Your task to perform on an android device: Go to Reddit.com Image 0: 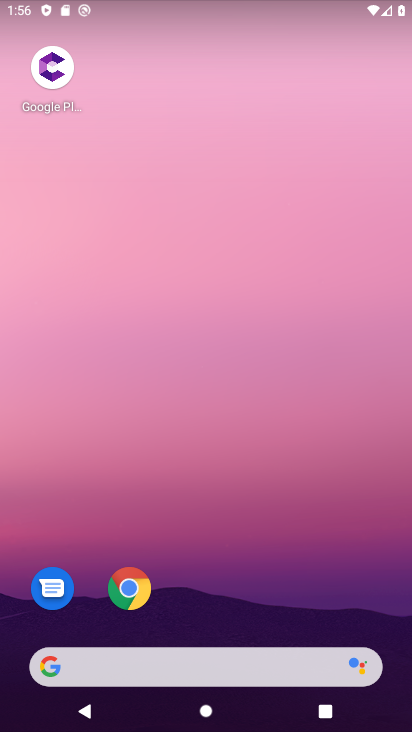
Step 0: click (110, 356)
Your task to perform on an android device: Go to Reddit.com Image 1: 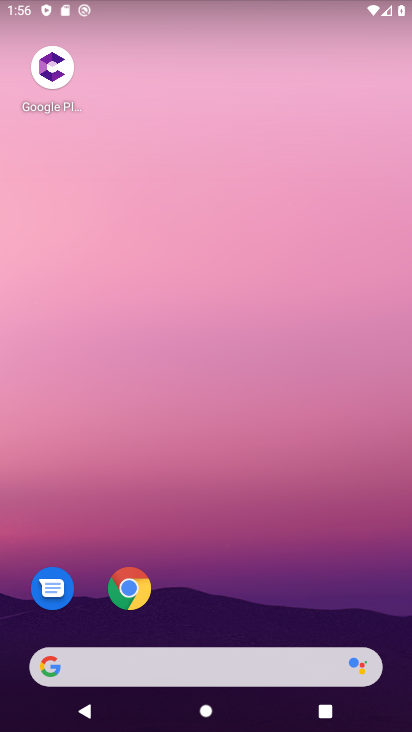
Step 1: click (234, 540)
Your task to perform on an android device: Go to Reddit.com Image 2: 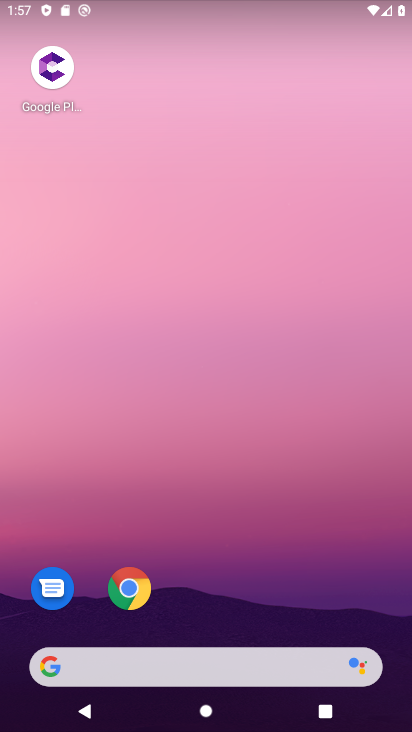
Step 2: click (102, 1)
Your task to perform on an android device: Go to Reddit.com Image 3: 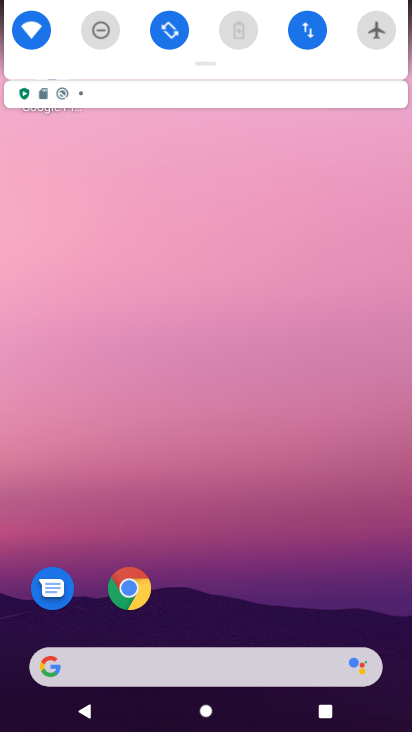
Step 3: click (245, 145)
Your task to perform on an android device: Go to Reddit.com Image 4: 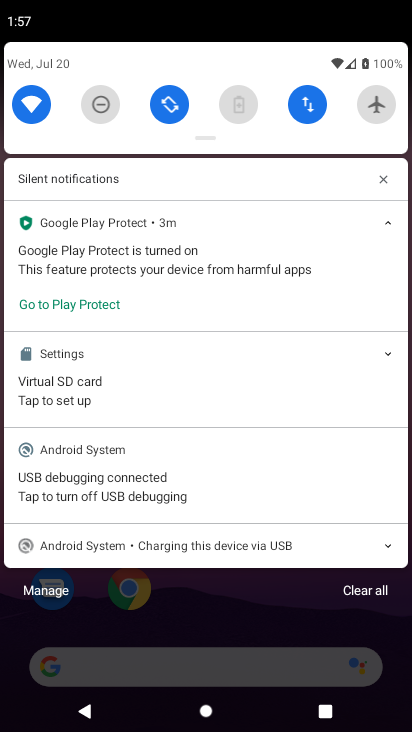
Step 4: press back button
Your task to perform on an android device: Go to Reddit.com Image 5: 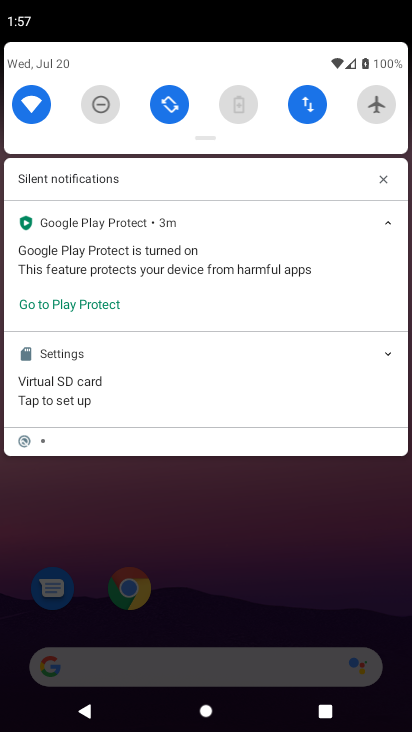
Step 5: press back button
Your task to perform on an android device: Go to Reddit.com Image 6: 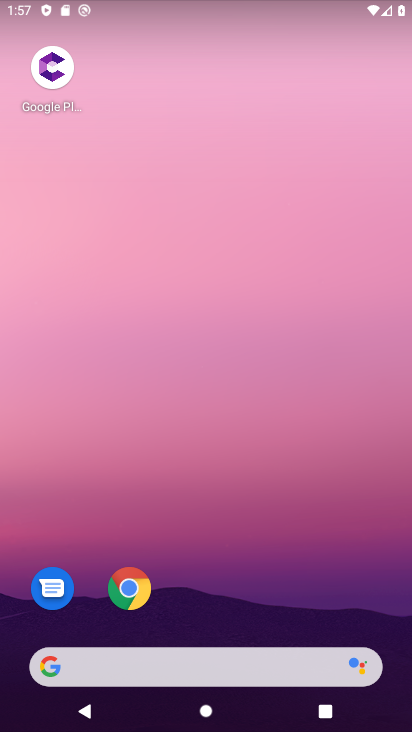
Step 6: click (161, 285)
Your task to perform on an android device: Go to Reddit.com Image 7: 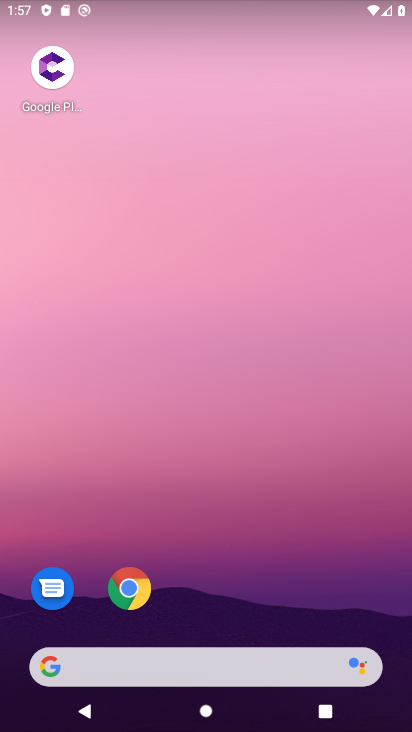
Step 7: drag from (202, 572) to (220, 275)
Your task to perform on an android device: Go to Reddit.com Image 8: 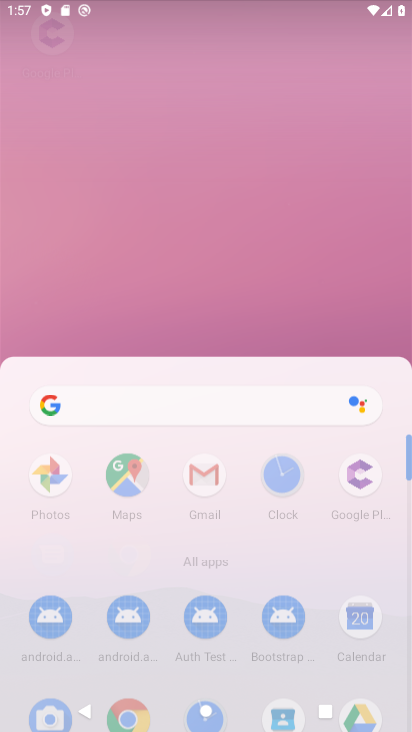
Step 8: drag from (313, 618) to (361, 217)
Your task to perform on an android device: Go to Reddit.com Image 9: 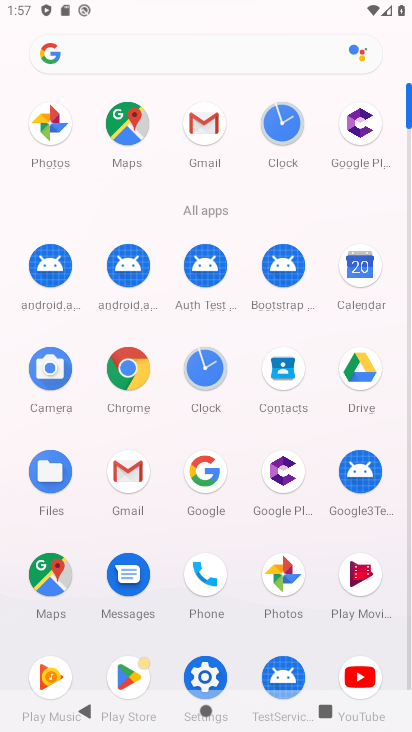
Step 9: click (379, 286)
Your task to perform on an android device: Go to Reddit.com Image 10: 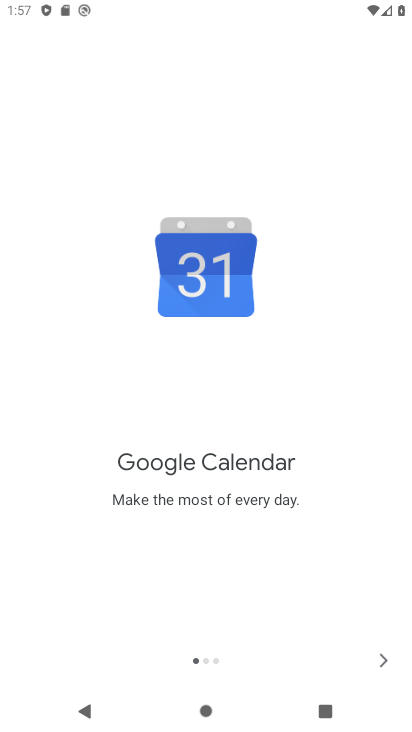
Step 10: press back button
Your task to perform on an android device: Go to Reddit.com Image 11: 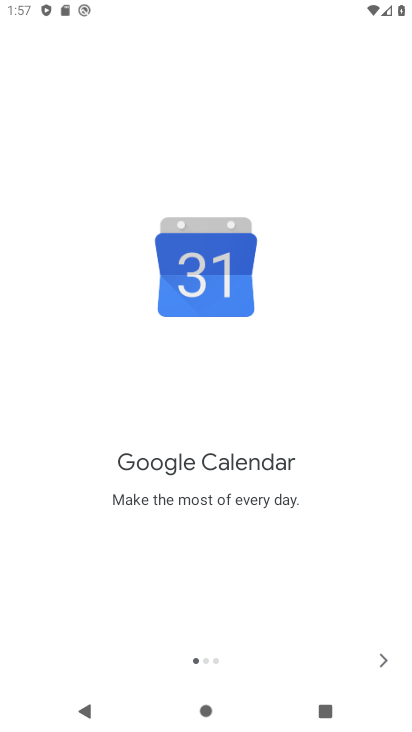
Step 11: press back button
Your task to perform on an android device: Go to Reddit.com Image 12: 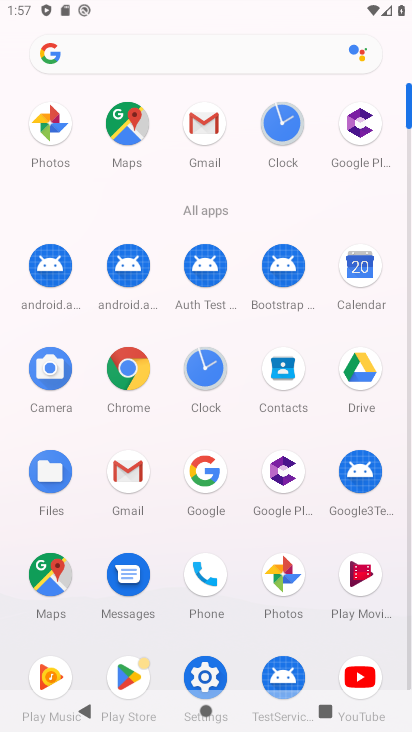
Step 12: press back button
Your task to perform on an android device: Go to Reddit.com Image 13: 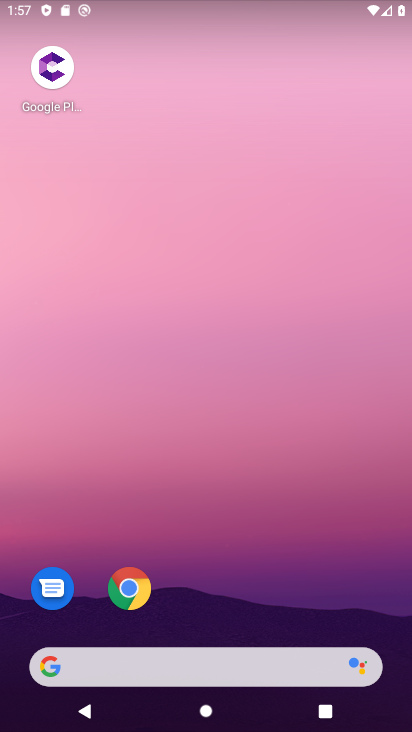
Step 13: drag from (214, 584) to (238, 149)
Your task to perform on an android device: Go to Reddit.com Image 14: 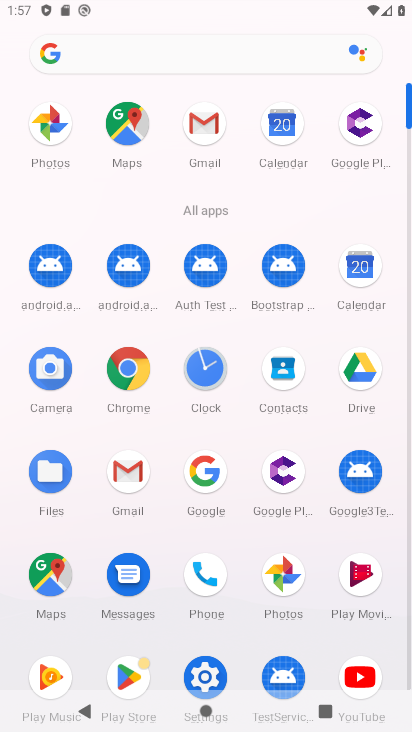
Step 14: click (114, 356)
Your task to perform on an android device: Go to Reddit.com Image 15: 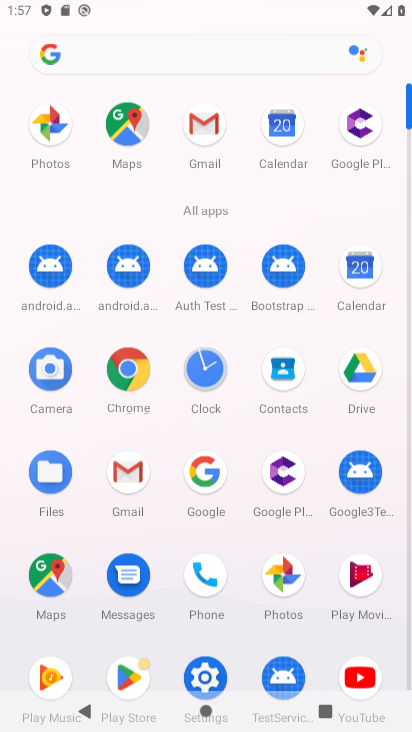
Step 15: click (134, 365)
Your task to perform on an android device: Go to Reddit.com Image 16: 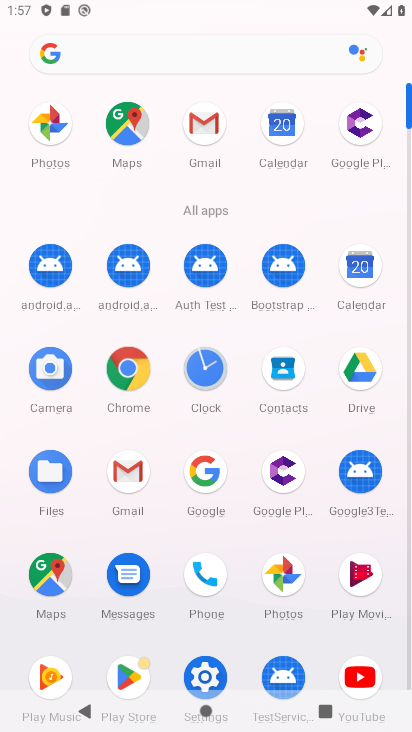
Step 16: click (131, 371)
Your task to perform on an android device: Go to Reddit.com Image 17: 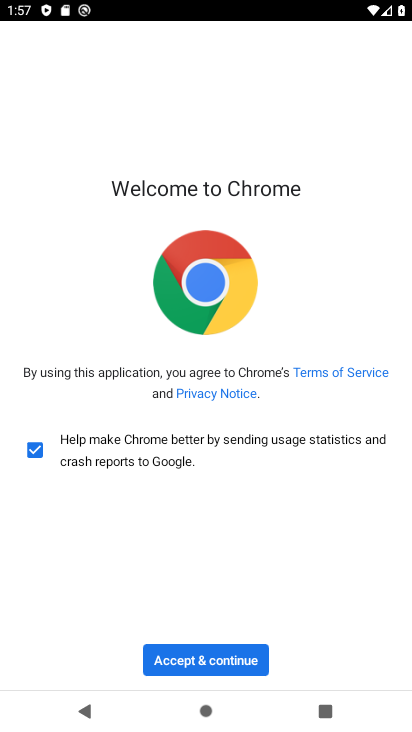
Step 17: click (210, 654)
Your task to perform on an android device: Go to Reddit.com Image 18: 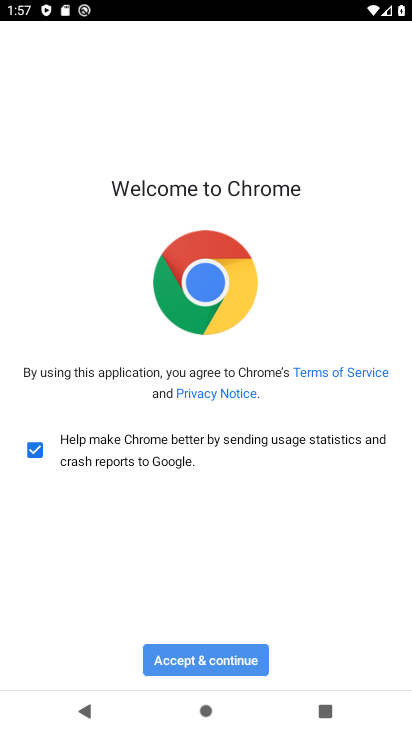
Step 18: click (210, 654)
Your task to perform on an android device: Go to Reddit.com Image 19: 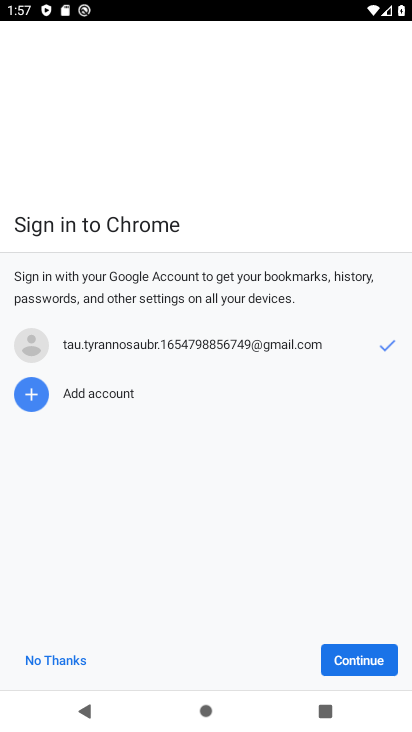
Step 19: click (214, 656)
Your task to perform on an android device: Go to Reddit.com Image 20: 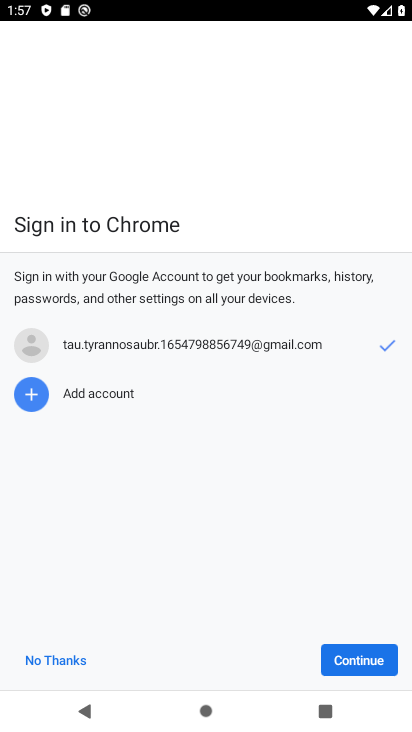
Step 20: click (343, 661)
Your task to perform on an android device: Go to Reddit.com Image 21: 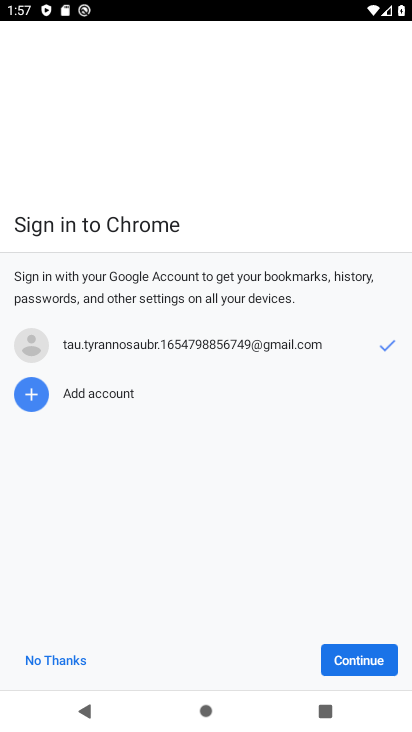
Step 21: click (350, 654)
Your task to perform on an android device: Go to Reddit.com Image 22: 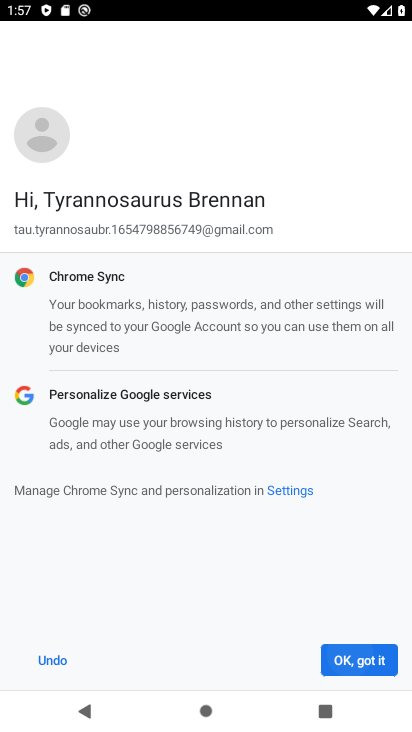
Step 22: click (370, 663)
Your task to perform on an android device: Go to Reddit.com Image 23: 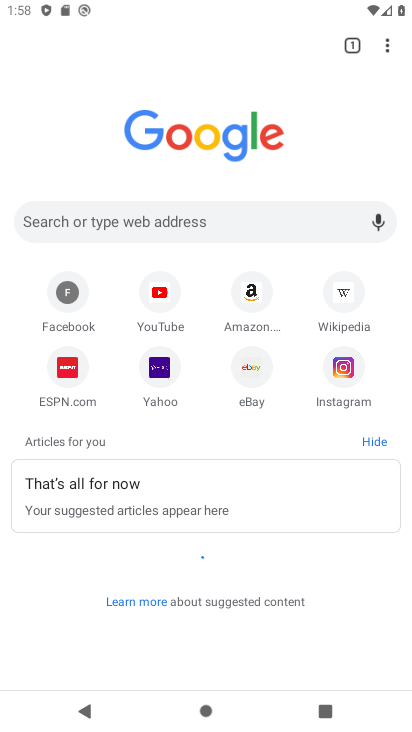
Step 23: drag from (389, 42) to (198, 88)
Your task to perform on an android device: Go to Reddit.com Image 24: 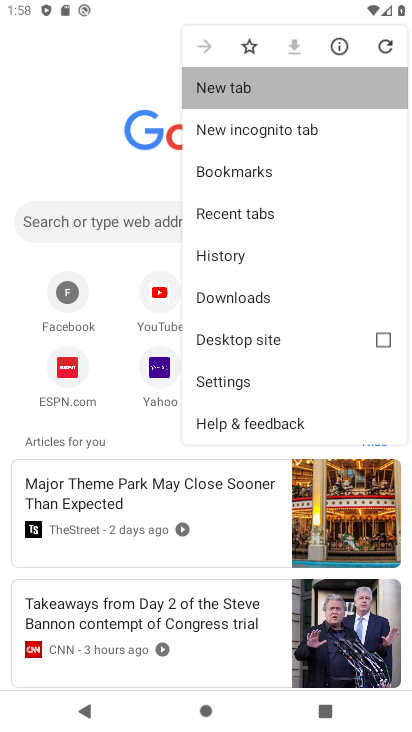
Step 24: click (205, 88)
Your task to perform on an android device: Go to Reddit.com Image 25: 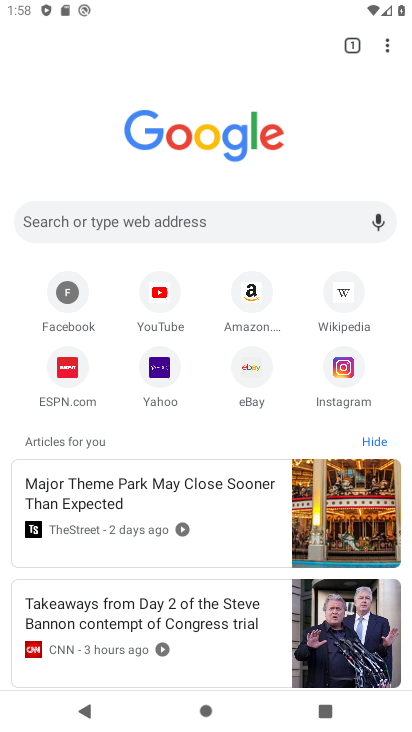
Step 25: click (207, 88)
Your task to perform on an android device: Go to Reddit.com Image 26: 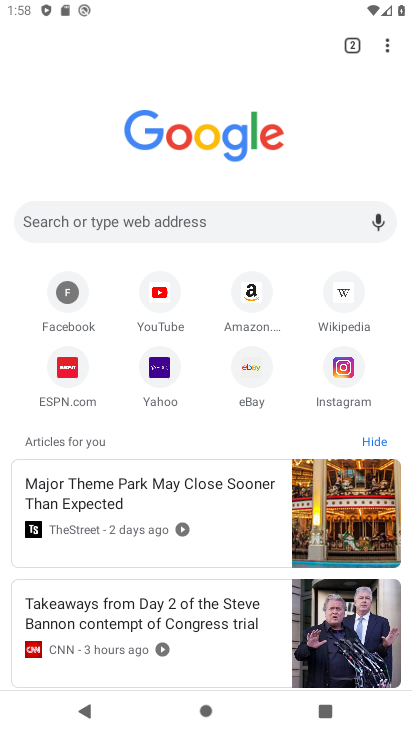
Step 26: click (86, 214)
Your task to perform on an android device: Go to Reddit.com Image 27: 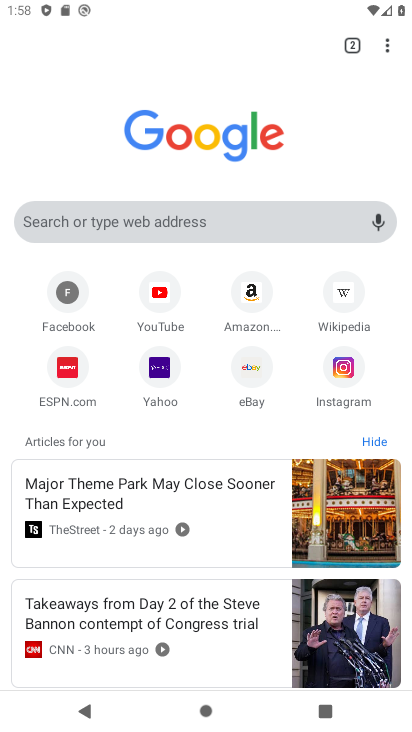
Step 27: click (78, 217)
Your task to perform on an android device: Go to Reddit.com Image 28: 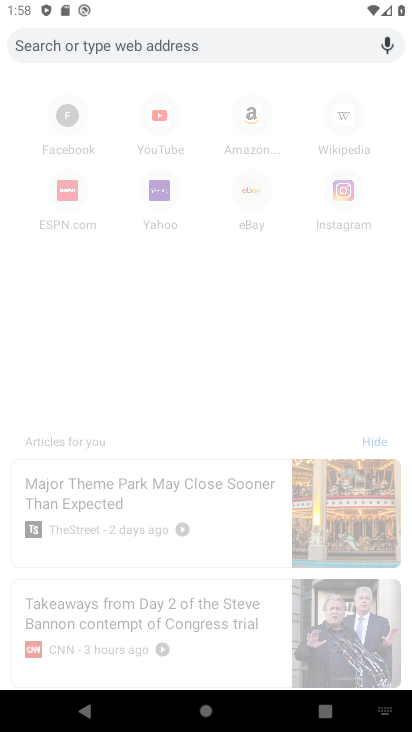
Step 28: type "reddit.com"
Your task to perform on an android device: Go to Reddit.com Image 29: 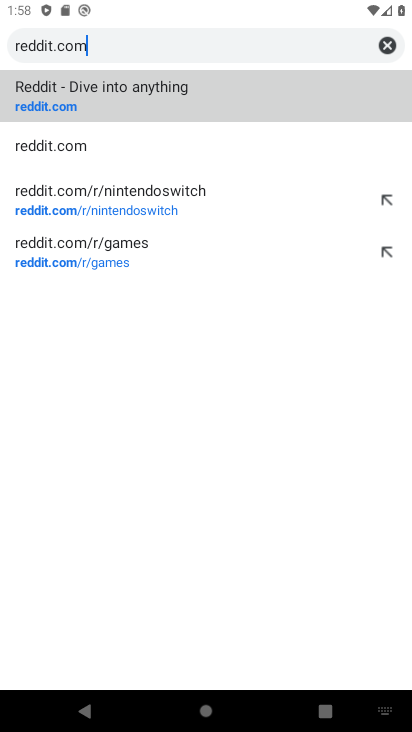
Step 29: click (42, 87)
Your task to perform on an android device: Go to Reddit.com Image 30: 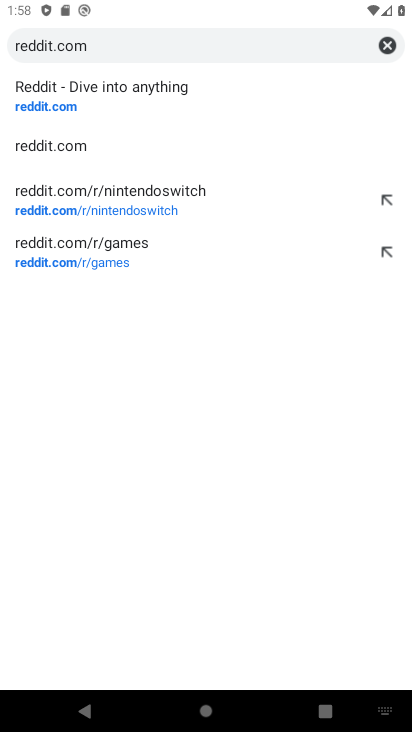
Step 30: click (42, 87)
Your task to perform on an android device: Go to Reddit.com Image 31: 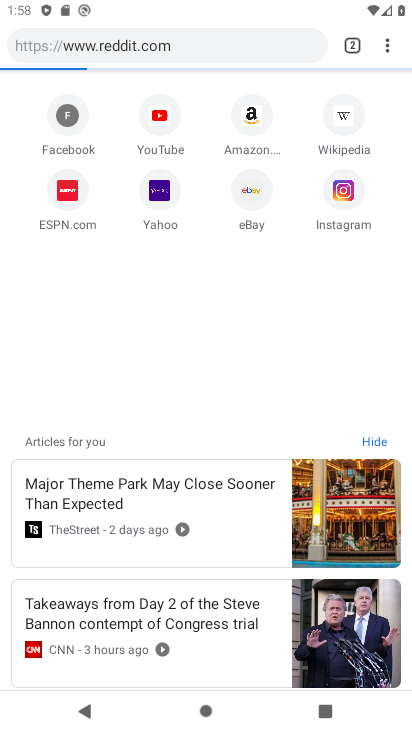
Step 31: click (45, 87)
Your task to perform on an android device: Go to Reddit.com Image 32: 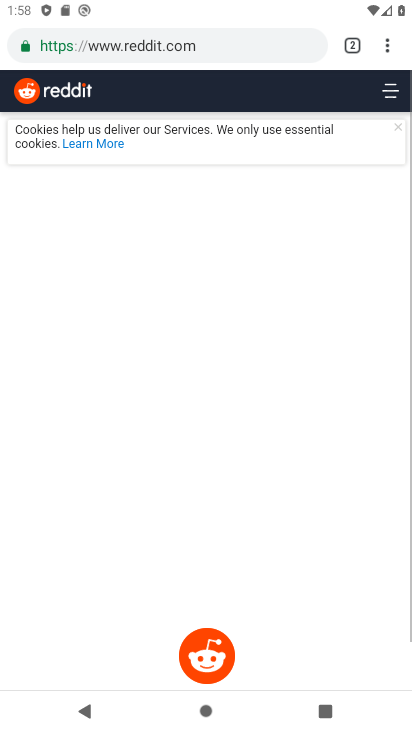
Step 32: task complete